Your task to perform on an android device: Show me popular games on the Play Store Image 0: 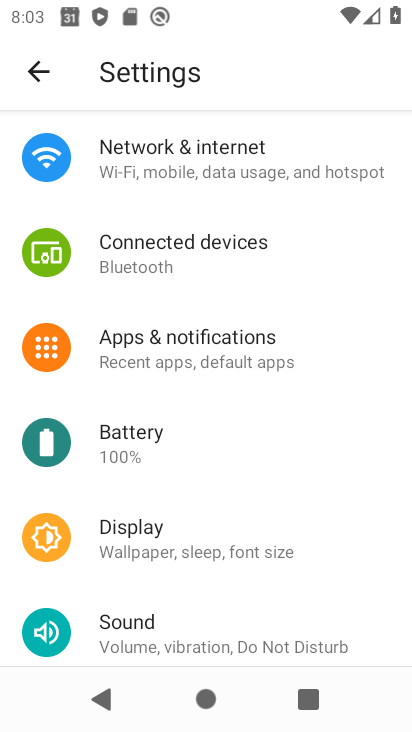
Step 0: press home button
Your task to perform on an android device: Show me popular games on the Play Store Image 1: 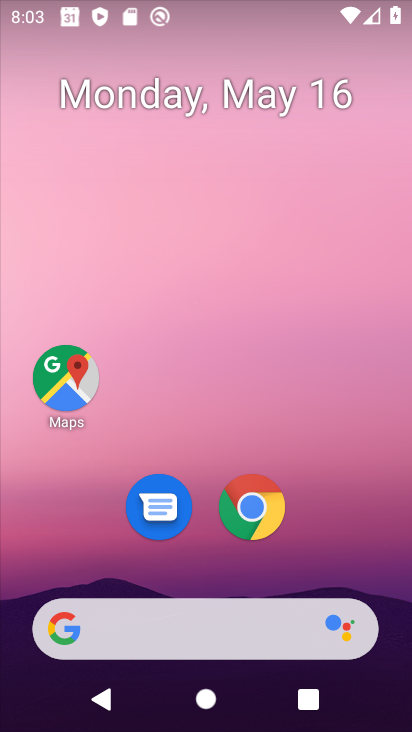
Step 1: drag from (317, 573) to (338, 72)
Your task to perform on an android device: Show me popular games on the Play Store Image 2: 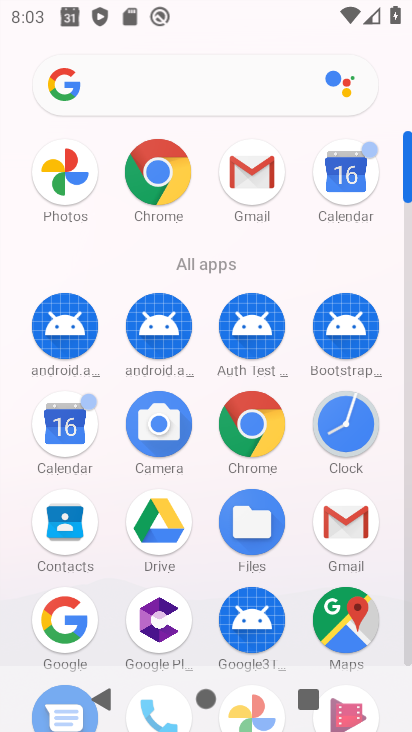
Step 2: drag from (303, 294) to (319, 26)
Your task to perform on an android device: Show me popular games on the Play Store Image 3: 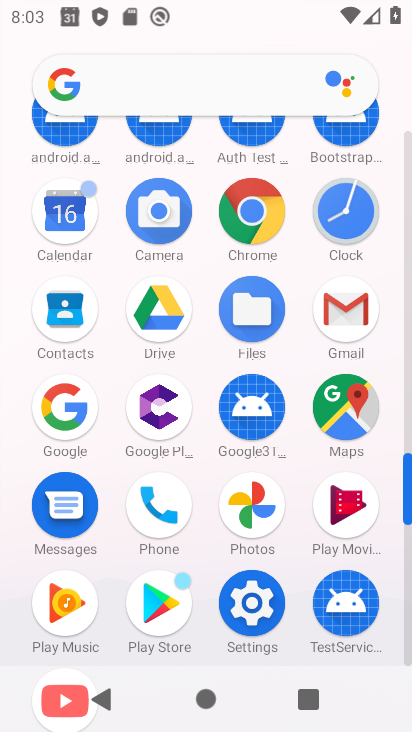
Step 3: click (155, 617)
Your task to perform on an android device: Show me popular games on the Play Store Image 4: 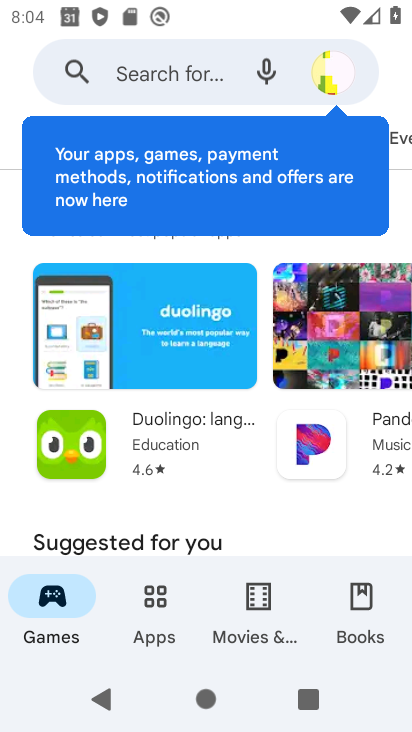
Step 4: click (138, 62)
Your task to perform on an android device: Show me popular games on the Play Store Image 5: 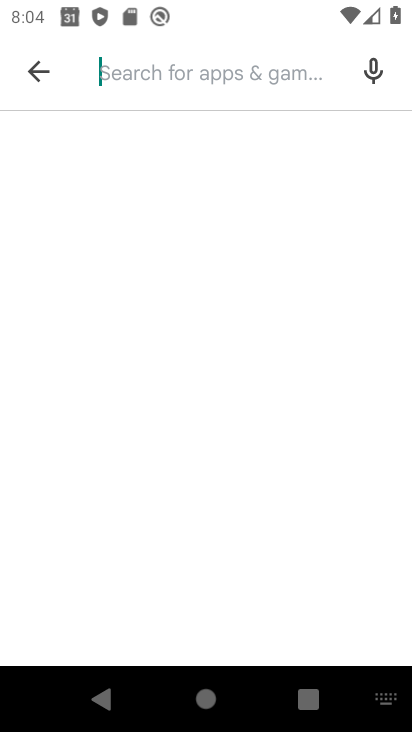
Step 5: type " popular games "
Your task to perform on an android device: Show me popular games on the Play Store Image 6: 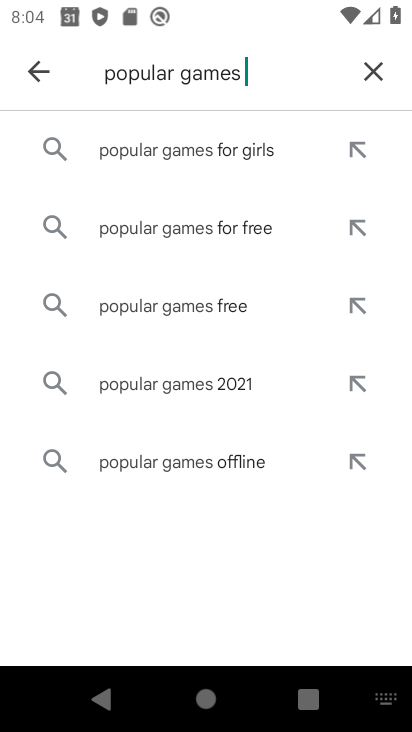
Step 6: click (202, 301)
Your task to perform on an android device: Show me popular games on the Play Store Image 7: 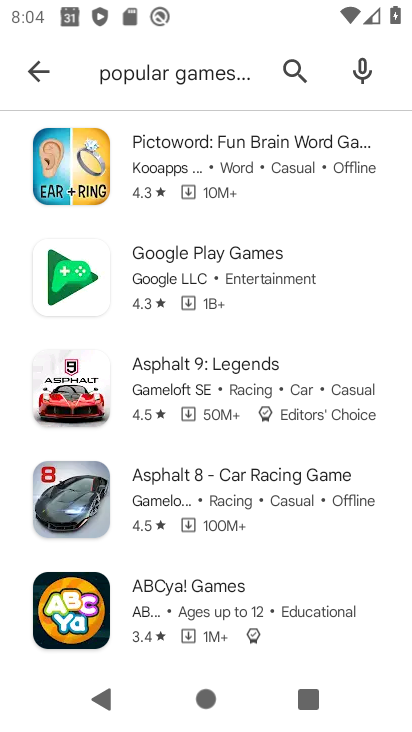
Step 7: task complete